Your task to perform on an android device: turn notification dots off Image 0: 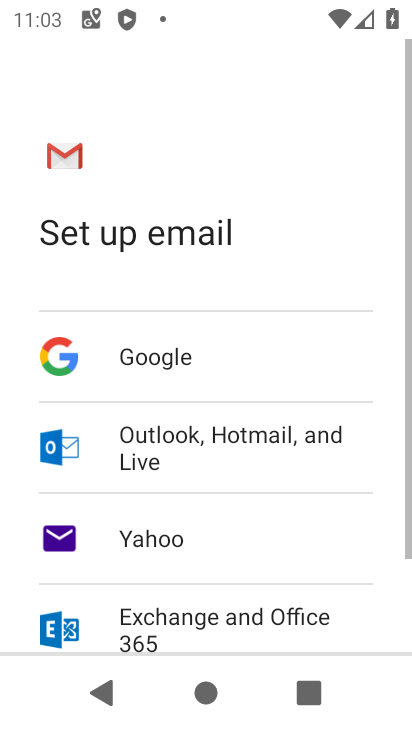
Step 0: press home button
Your task to perform on an android device: turn notification dots off Image 1: 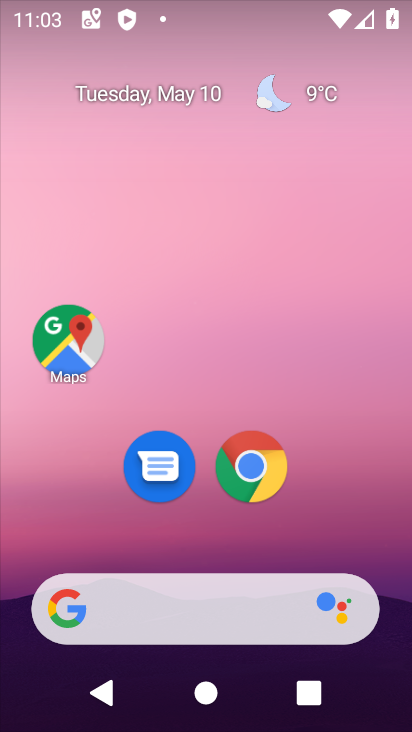
Step 1: drag from (324, 529) to (244, 46)
Your task to perform on an android device: turn notification dots off Image 2: 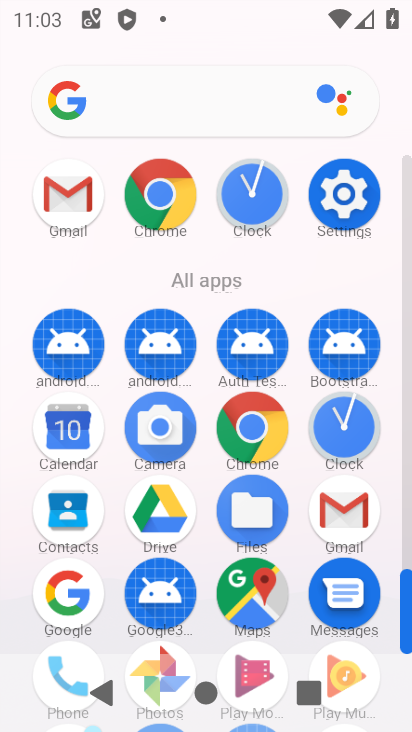
Step 2: click (355, 204)
Your task to perform on an android device: turn notification dots off Image 3: 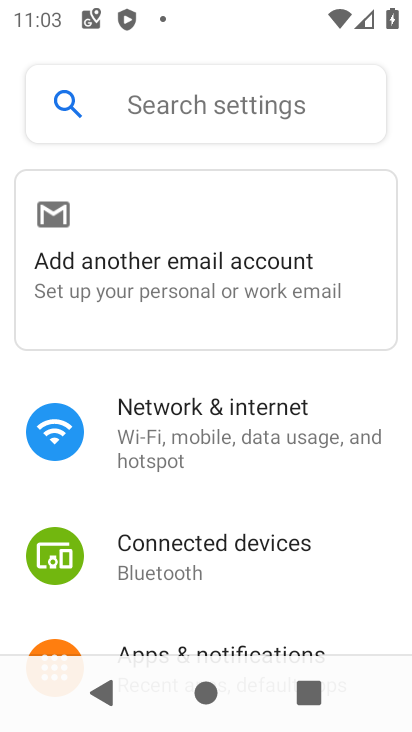
Step 3: drag from (273, 557) to (247, 402)
Your task to perform on an android device: turn notification dots off Image 4: 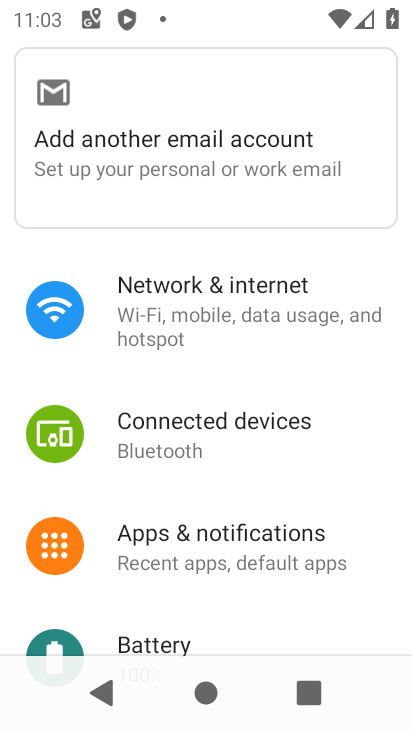
Step 4: click (224, 530)
Your task to perform on an android device: turn notification dots off Image 5: 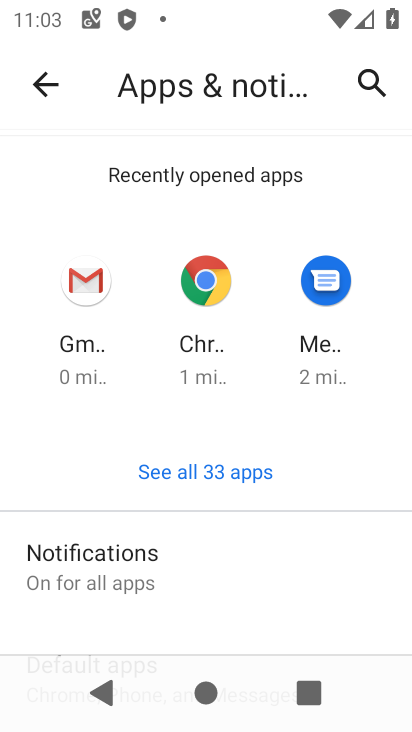
Step 5: click (187, 569)
Your task to perform on an android device: turn notification dots off Image 6: 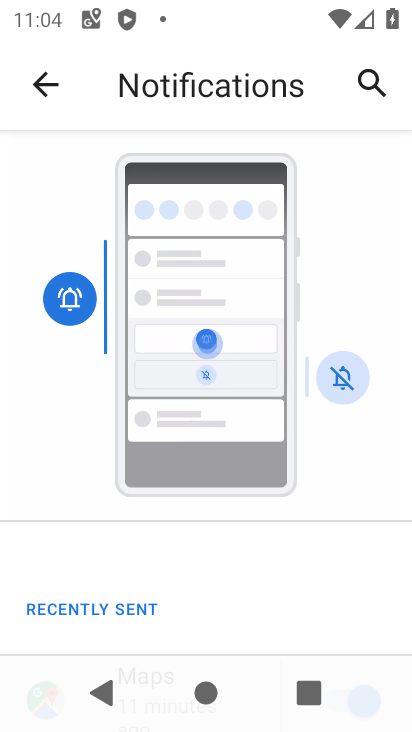
Step 6: drag from (173, 611) to (174, 237)
Your task to perform on an android device: turn notification dots off Image 7: 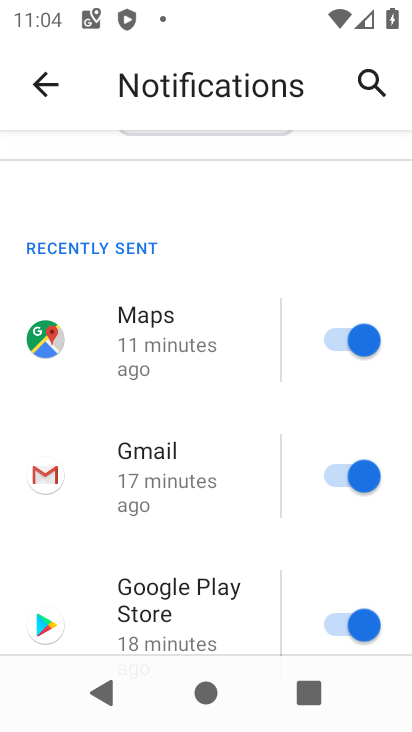
Step 7: drag from (198, 500) to (158, 278)
Your task to perform on an android device: turn notification dots off Image 8: 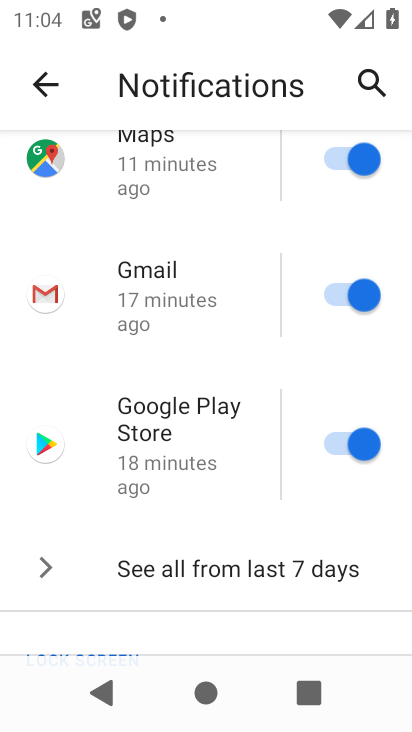
Step 8: drag from (112, 563) to (132, 305)
Your task to perform on an android device: turn notification dots off Image 9: 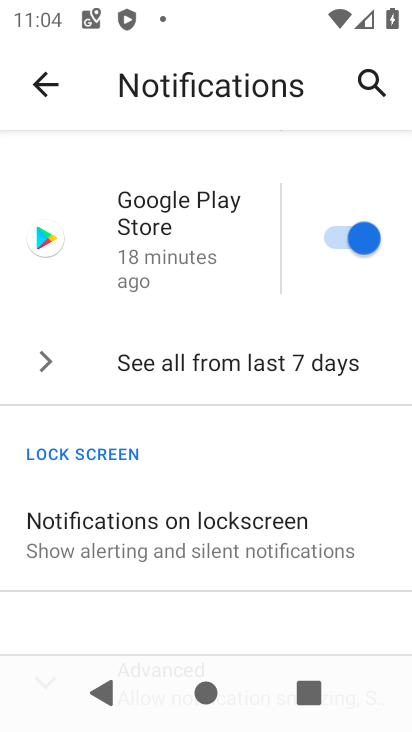
Step 9: drag from (225, 570) to (126, 273)
Your task to perform on an android device: turn notification dots off Image 10: 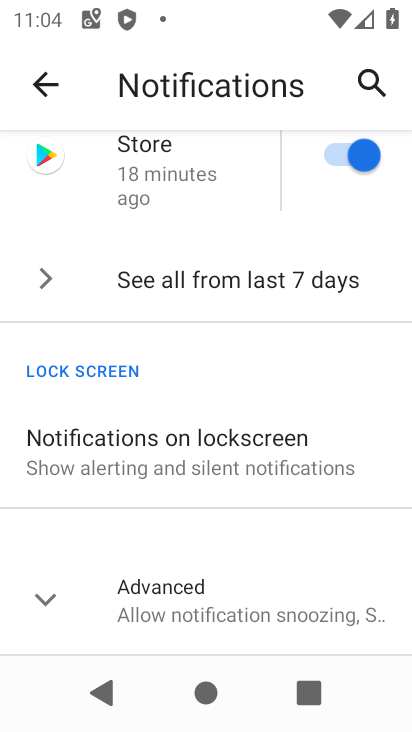
Step 10: click (252, 615)
Your task to perform on an android device: turn notification dots off Image 11: 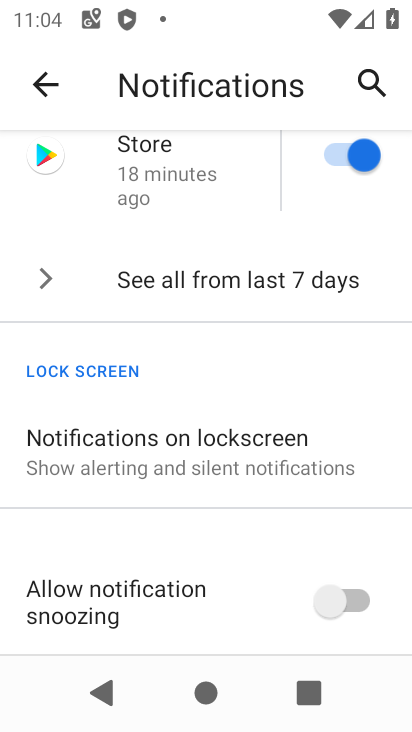
Step 11: drag from (282, 628) to (244, 329)
Your task to perform on an android device: turn notification dots off Image 12: 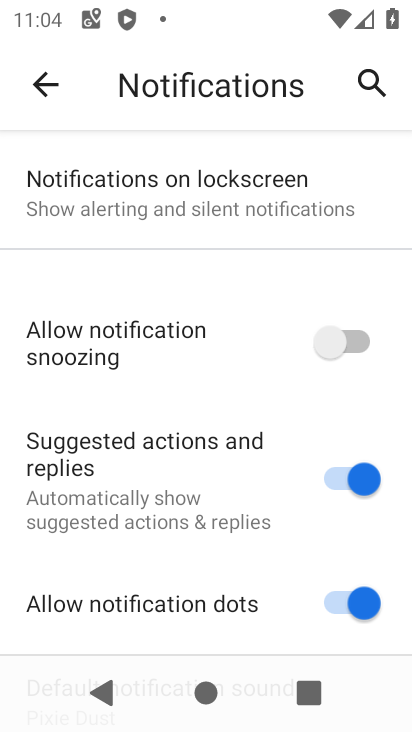
Step 12: click (357, 603)
Your task to perform on an android device: turn notification dots off Image 13: 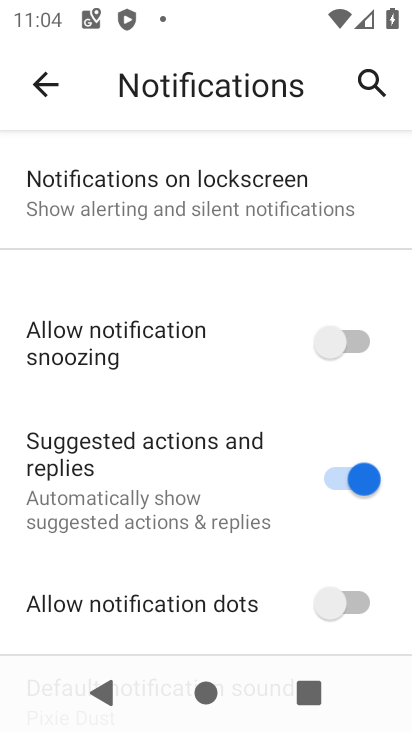
Step 13: task complete